Your task to perform on an android device: How much does a 2 bedroom apartment rent for in Portland? Image 0: 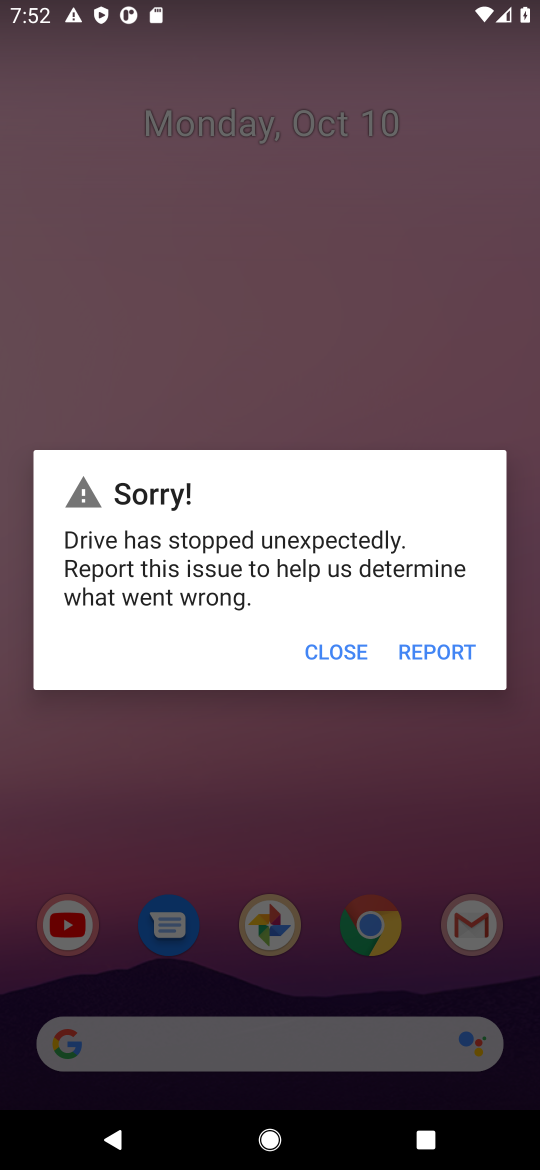
Step 0: press home button
Your task to perform on an android device: How much does a 2 bedroom apartment rent for in Portland? Image 1: 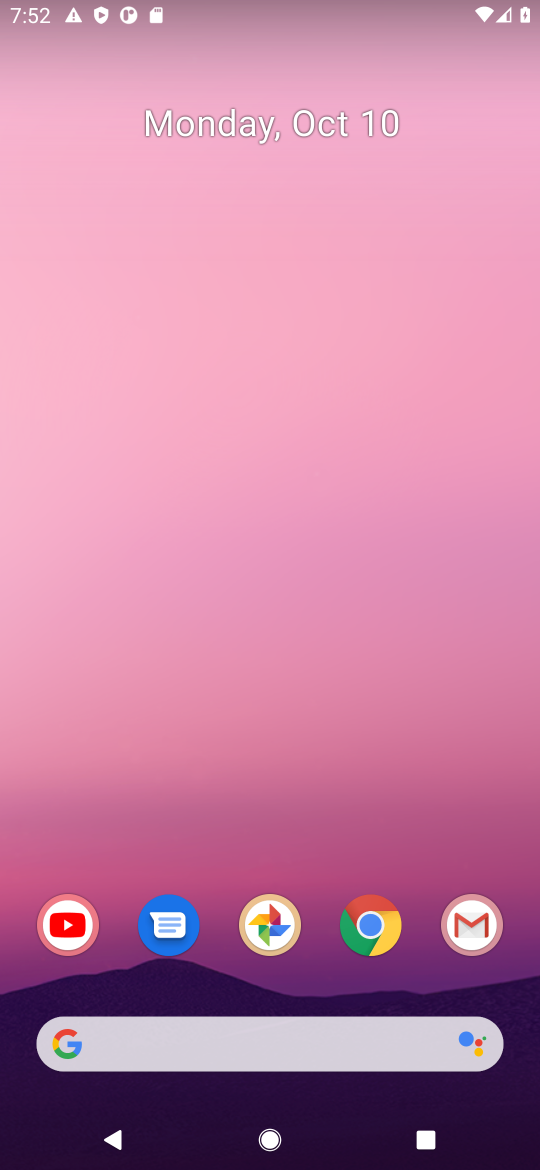
Step 1: drag from (327, 1006) to (364, 201)
Your task to perform on an android device: How much does a 2 bedroom apartment rent for in Portland? Image 2: 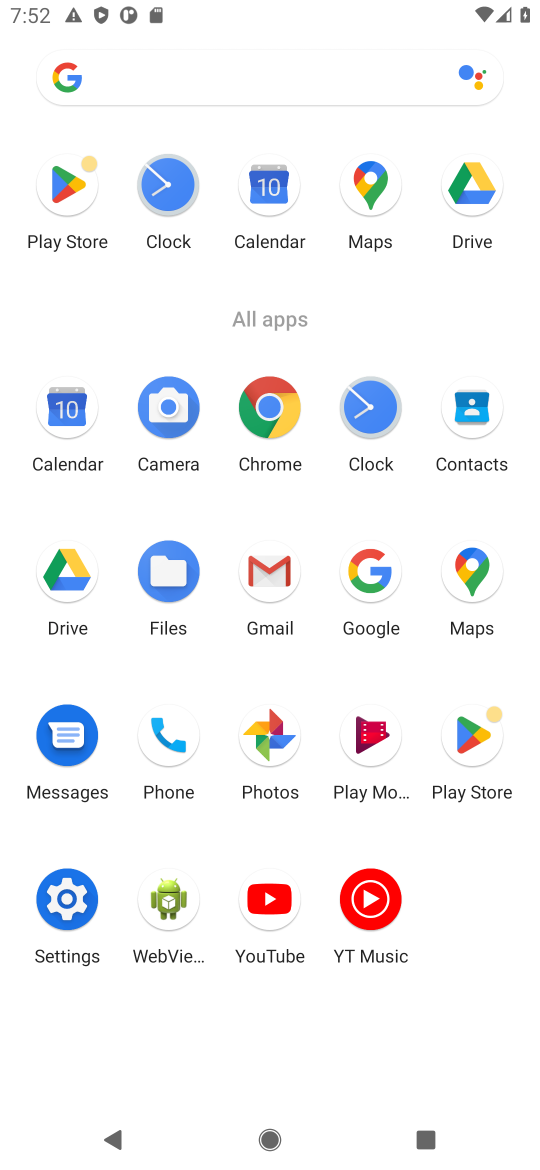
Step 2: click (261, 404)
Your task to perform on an android device: How much does a 2 bedroom apartment rent for in Portland? Image 3: 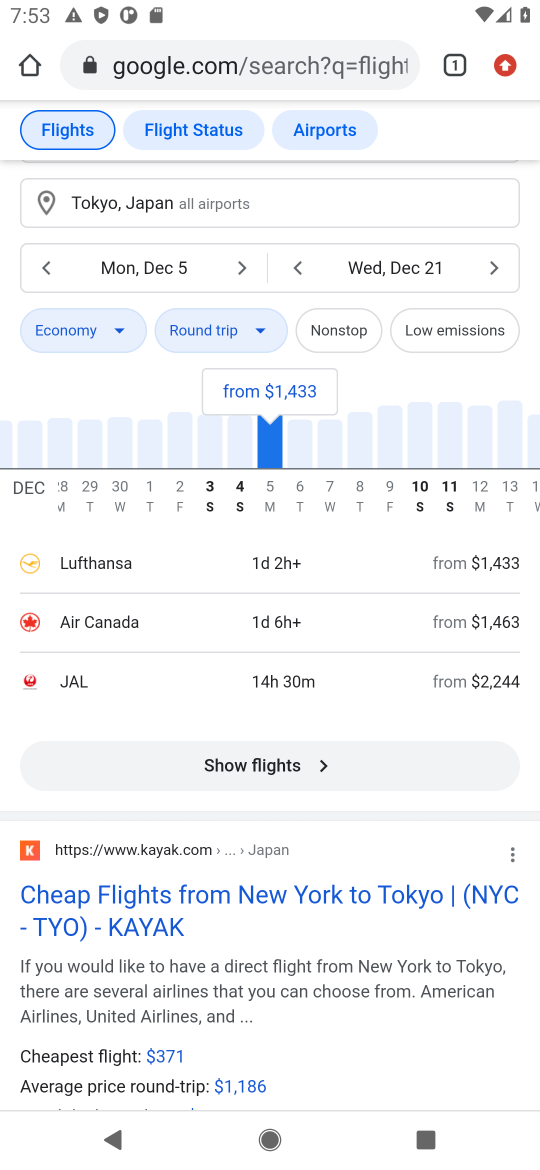
Step 3: click (232, 60)
Your task to perform on an android device: How much does a 2 bedroom apartment rent for in Portland? Image 4: 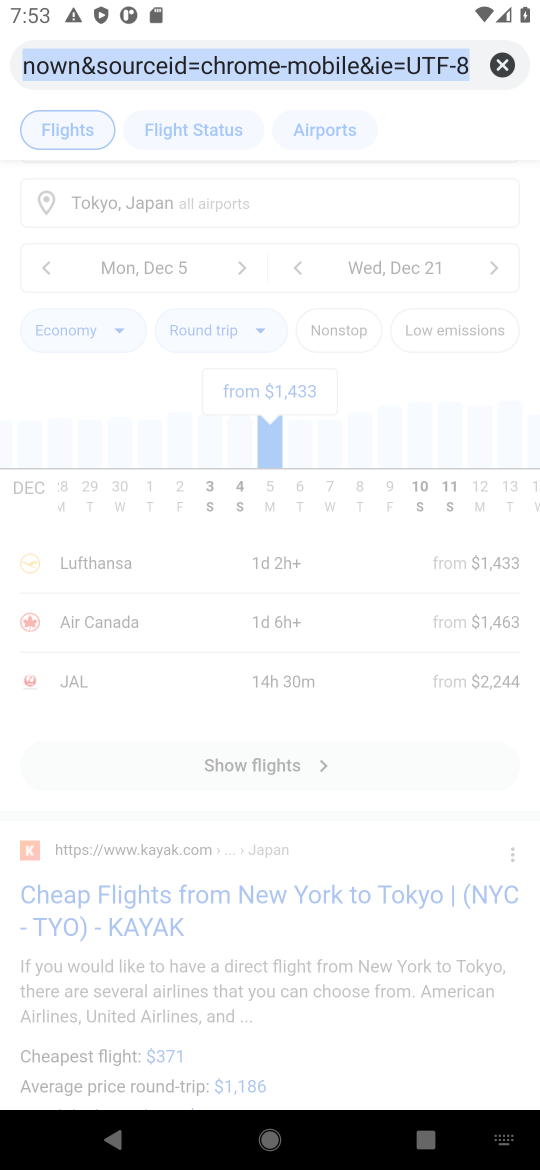
Step 4: type "How much does a 2 bedroom apartment"
Your task to perform on an android device: How much does a 2 bedroom apartment rent for in Portland? Image 5: 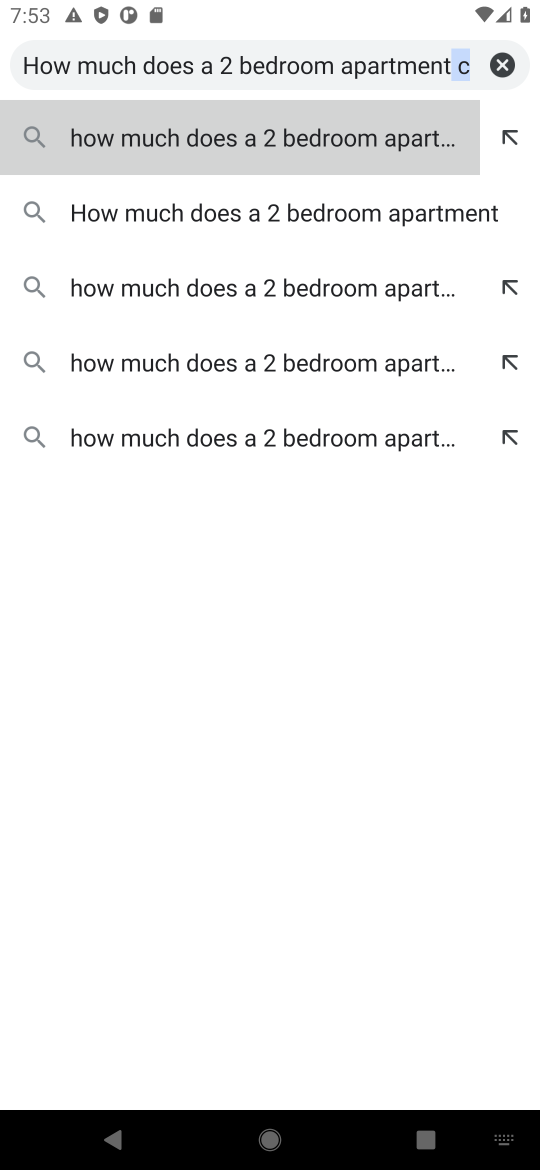
Step 5: type " rent for in Portland?"
Your task to perform on an android device: How much does a 2 bedroom apartment rent for in Portland? Image 6: 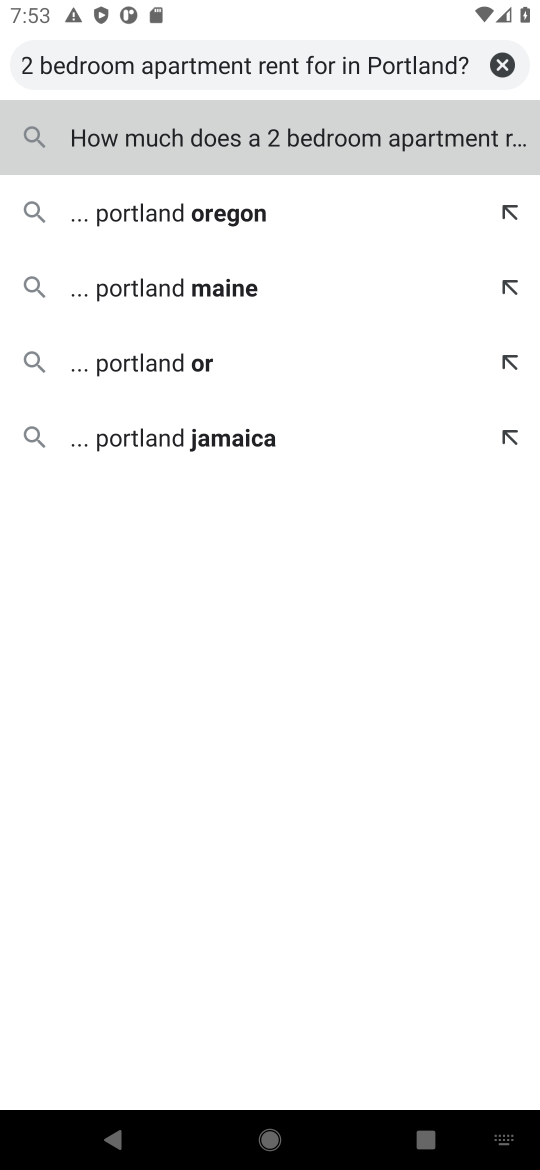
Step 6: press enter
Your task to perform on an android device: How much does a 2 bedroom apartment rent for in Portland? Image 7: 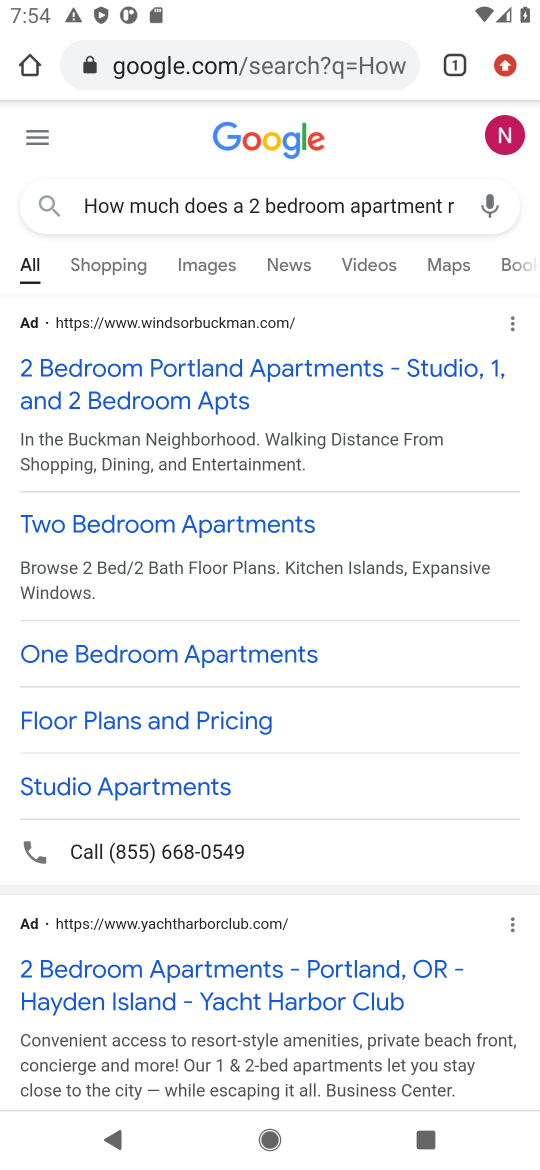
Step 7: drag from (406, 808) to (190, 24)
Your task to perform on an android device: How much does a 2 bedroom apartment rent for in Portland? Image 8: 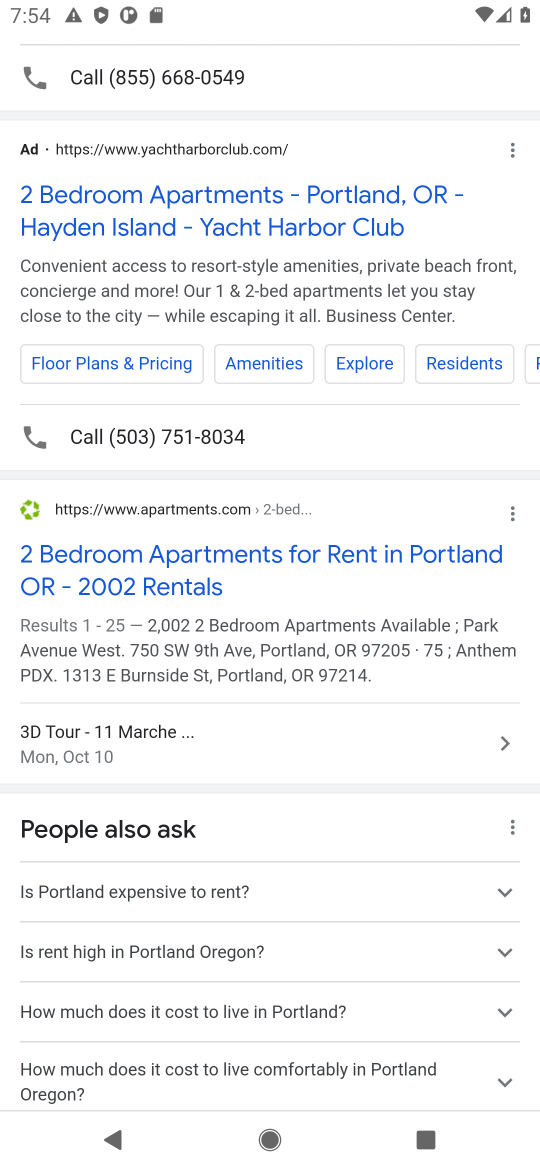
Step 8: click (178, 580)
Your task to perform on an android device: How much does a 2 bedroom apartment rent for in Portland? Image 9: 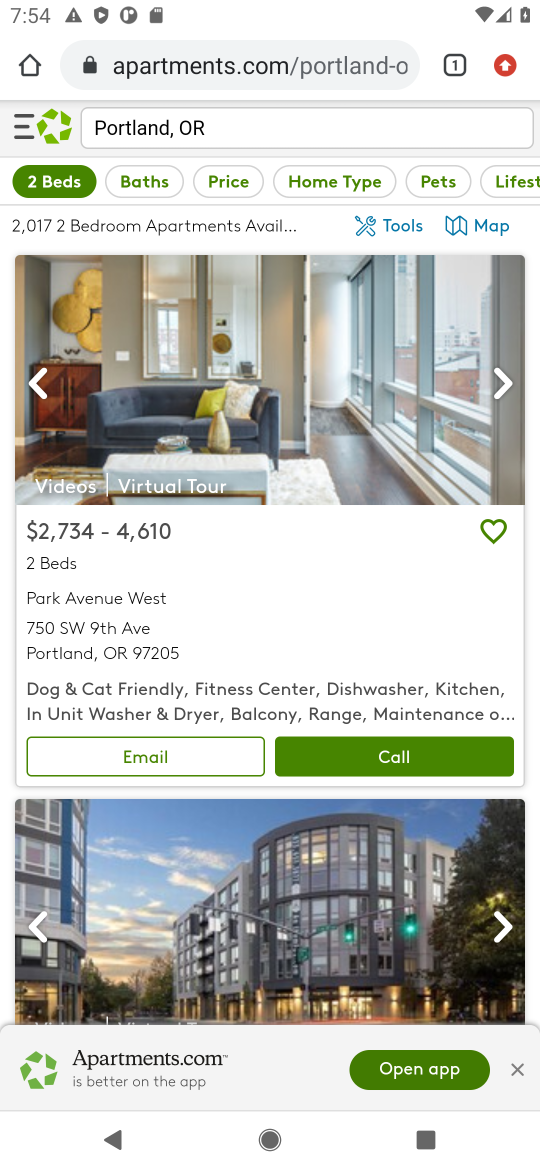
Step 9: task complete